Your task to perform on an android device: Open Google Image 0: 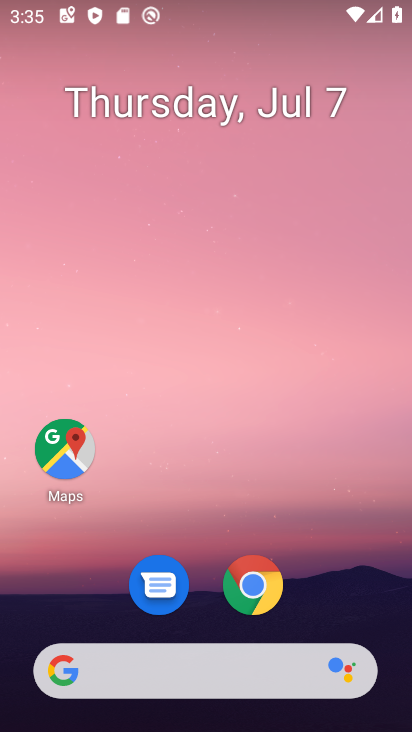
Step 0: drag from (274, 522) to (253, 4)
Your task to perform on an android device: Open Google Image 1: 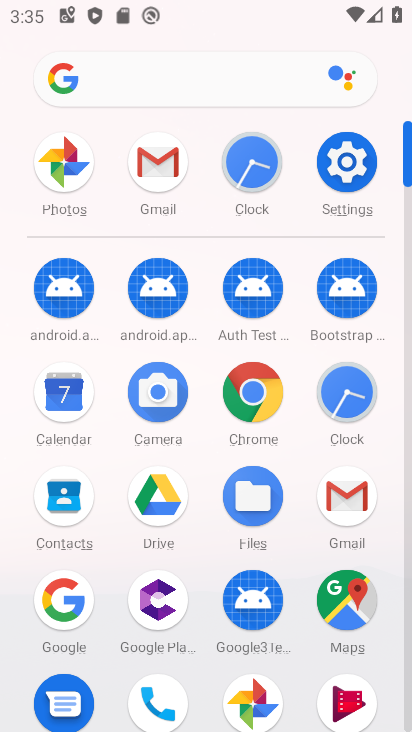
Step 1: click (78, 601)
Your task to perform on an android device: Open Google Image 2: 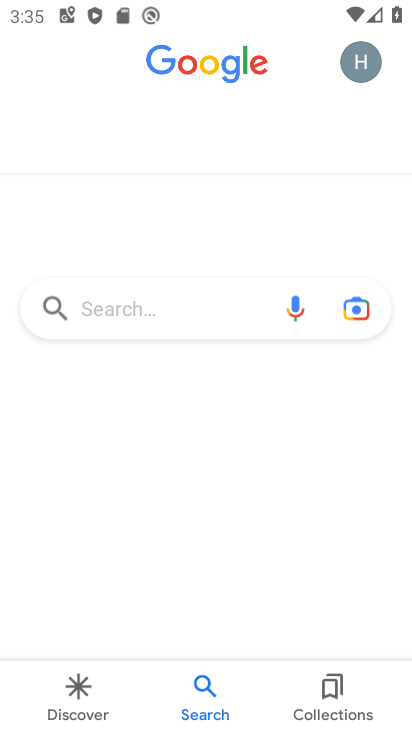
Step 2: click (246, 479)
Your task to perform on an android device: Open Google Image 3: 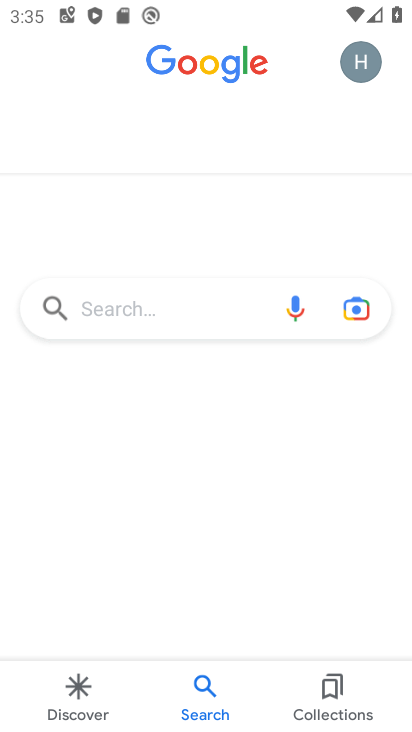
Step 3: click (163, 304)
Your task to perform on an android device: Open Google Image 4: 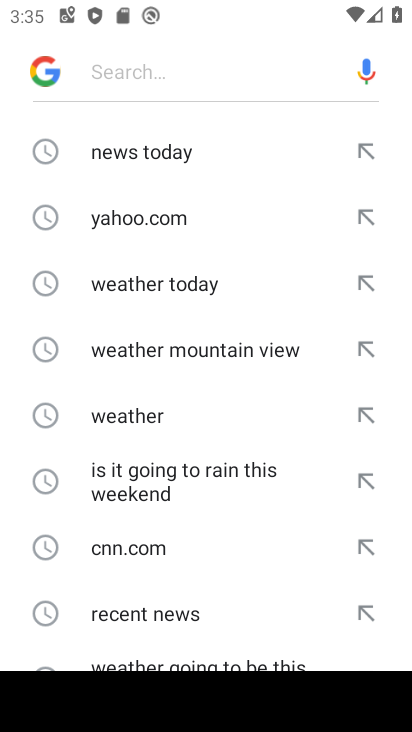
Step 4: click (43, 66)
Your task to perform on an android device: Open Google Image 5: 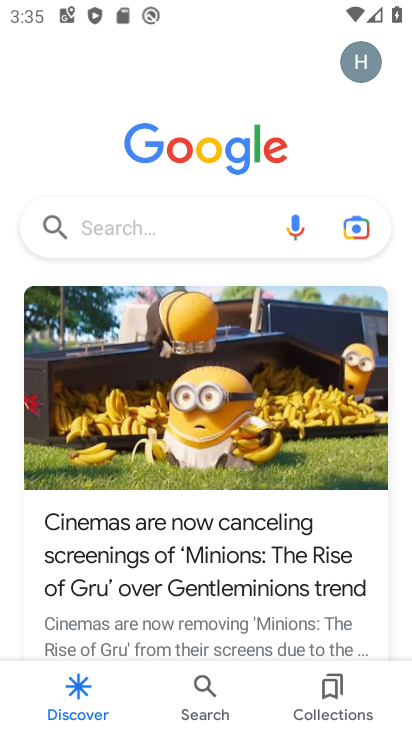
Step 5: task complete